Your task to perform on an android device: Search for Mexican restaurants on Maps Image 0: 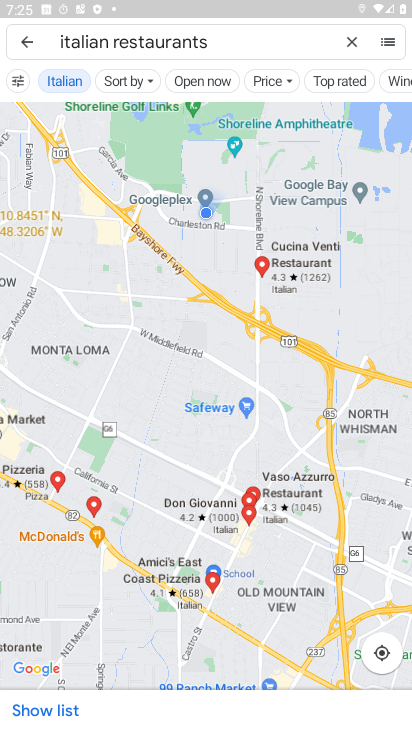
Step 0: press home button
Your task to perform on an android device: Search for Mexican restaurants on Maps Image 1: 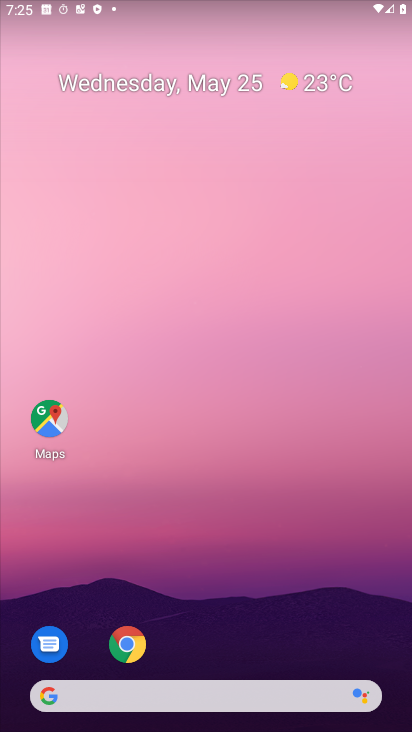
Step 1: drag from (239, 704) to (255, 107)
Your task to perform on an android device: Search for Mexican restaurants on Maps Image 2: 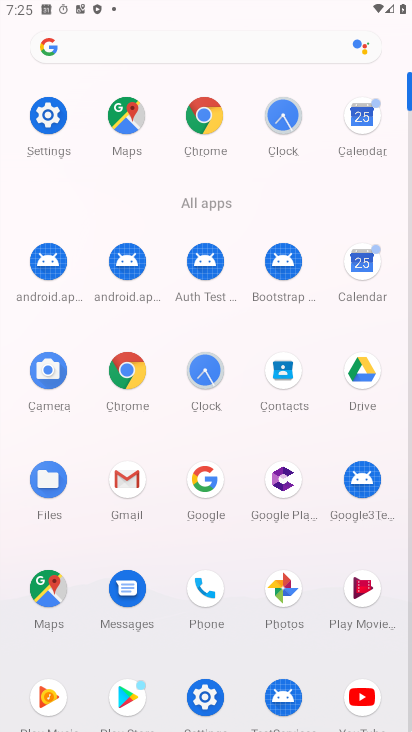
Step 2: click (138, 118)
Your task to perform on an android device: Search for Mexican restaurants on Maps Image 3: 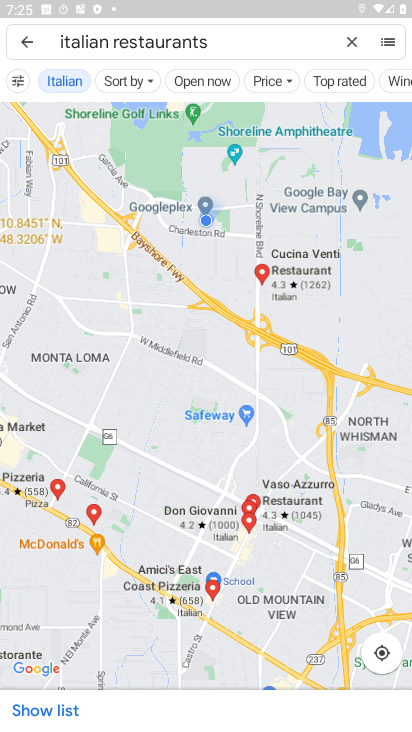
Step 3: click (340, 35)
Your task to perform on an android device: Search for Mexican restaurants on Maps Image 4: 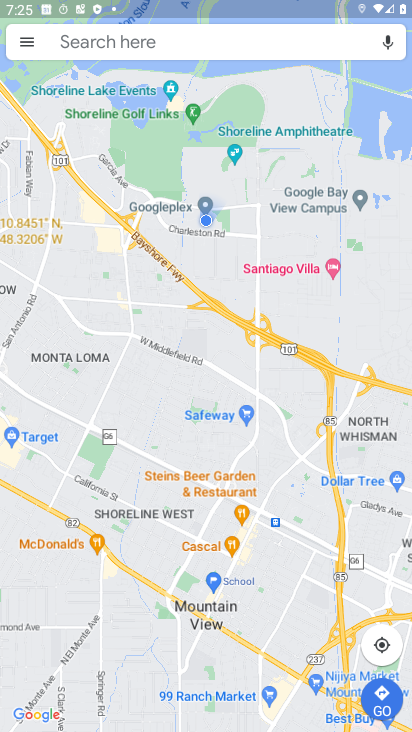
Step 4: click (241, 38)
Your task to perform on an android device: Search for Mexican restaurants on Maps Image 5: 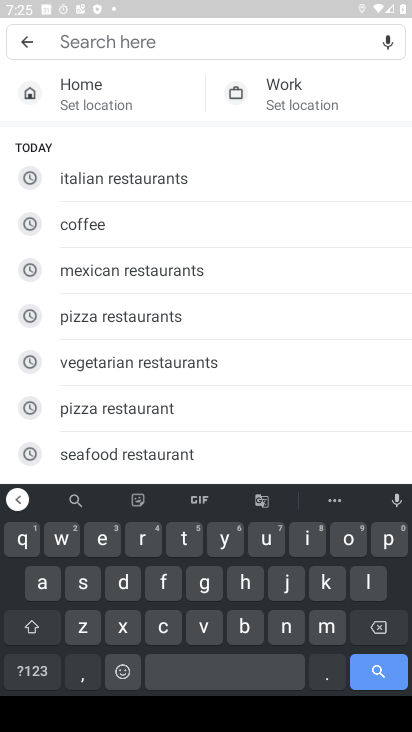
Step 5: click (195, 272)
Your task to perform on an android device: Search for Mexican restaurants on Maps Image 6: 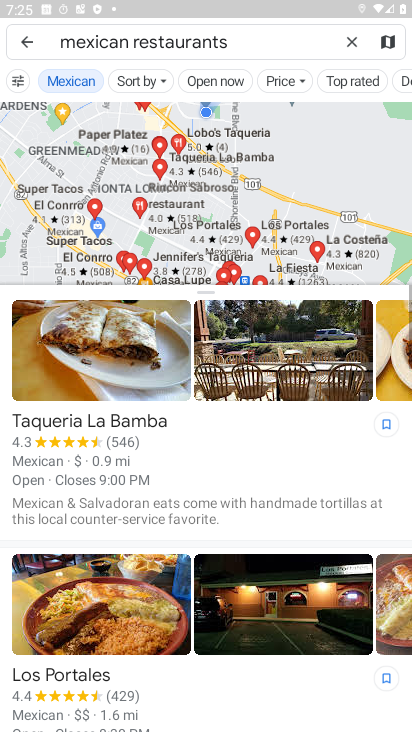
Step 6: task complete